Your task to perform on an android device: open app "Venmo" Image 0: 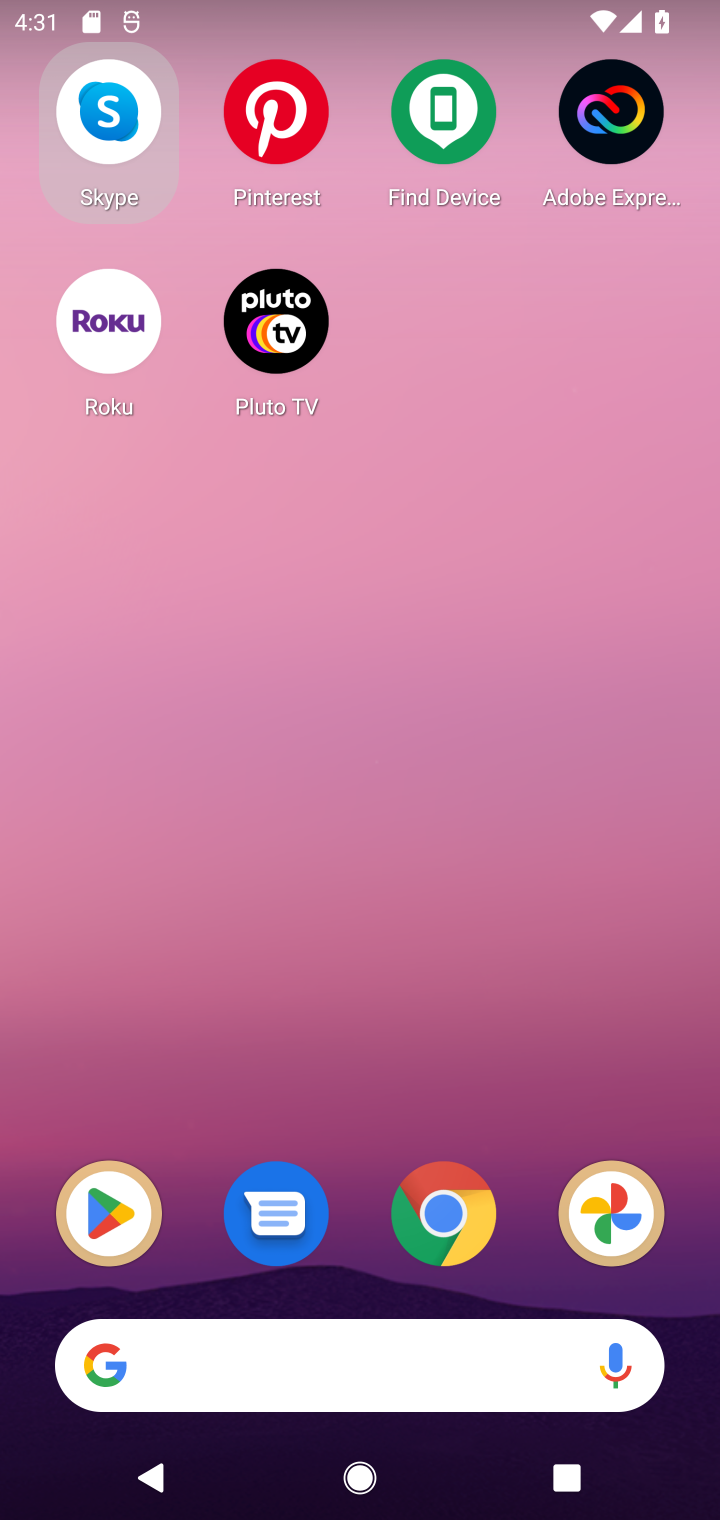
Step 0: drag from (567, 1040) to (659, 14)
Your task to perform on an android device: open app "Venmo" Image 1: 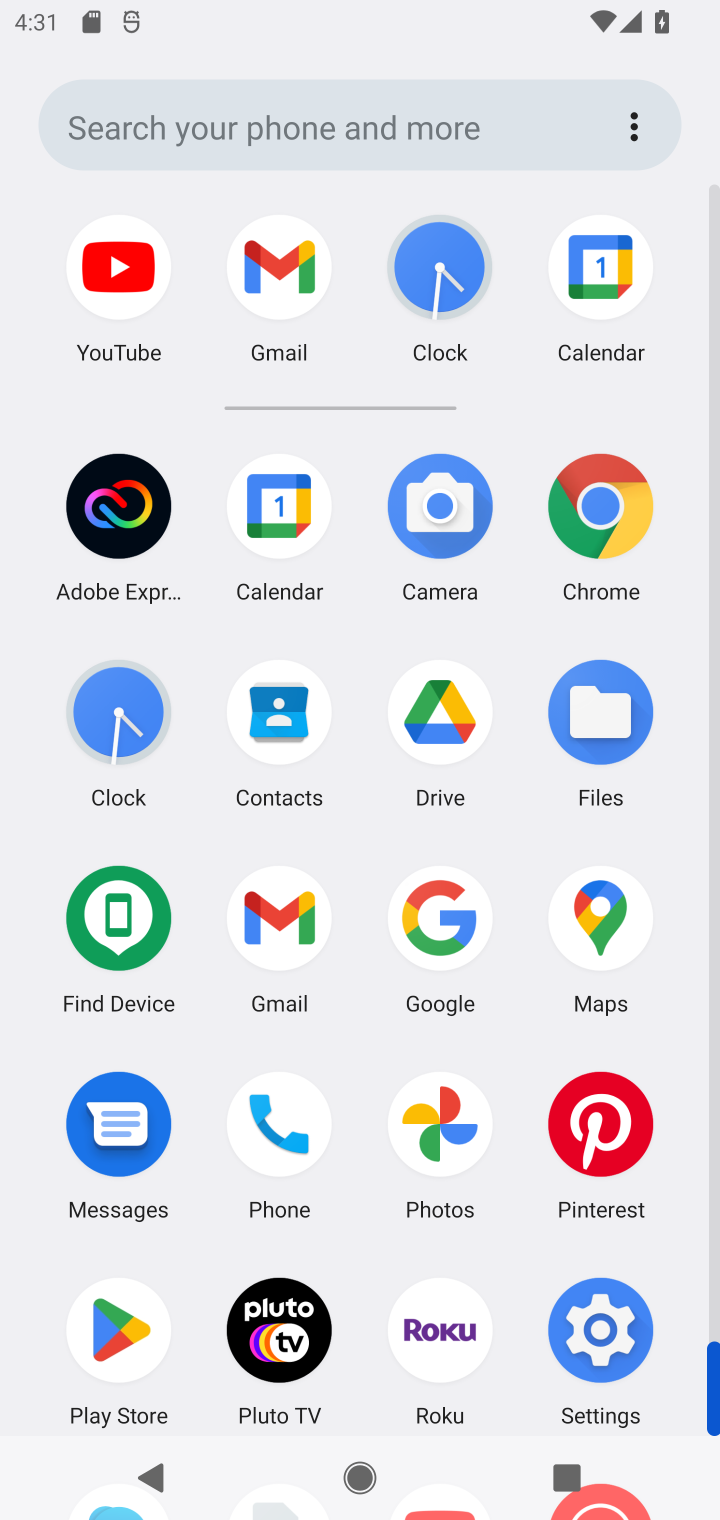
Step 1: click (106, 1289)
Your task to perform on an android device: open app "Venmo" Image 2: 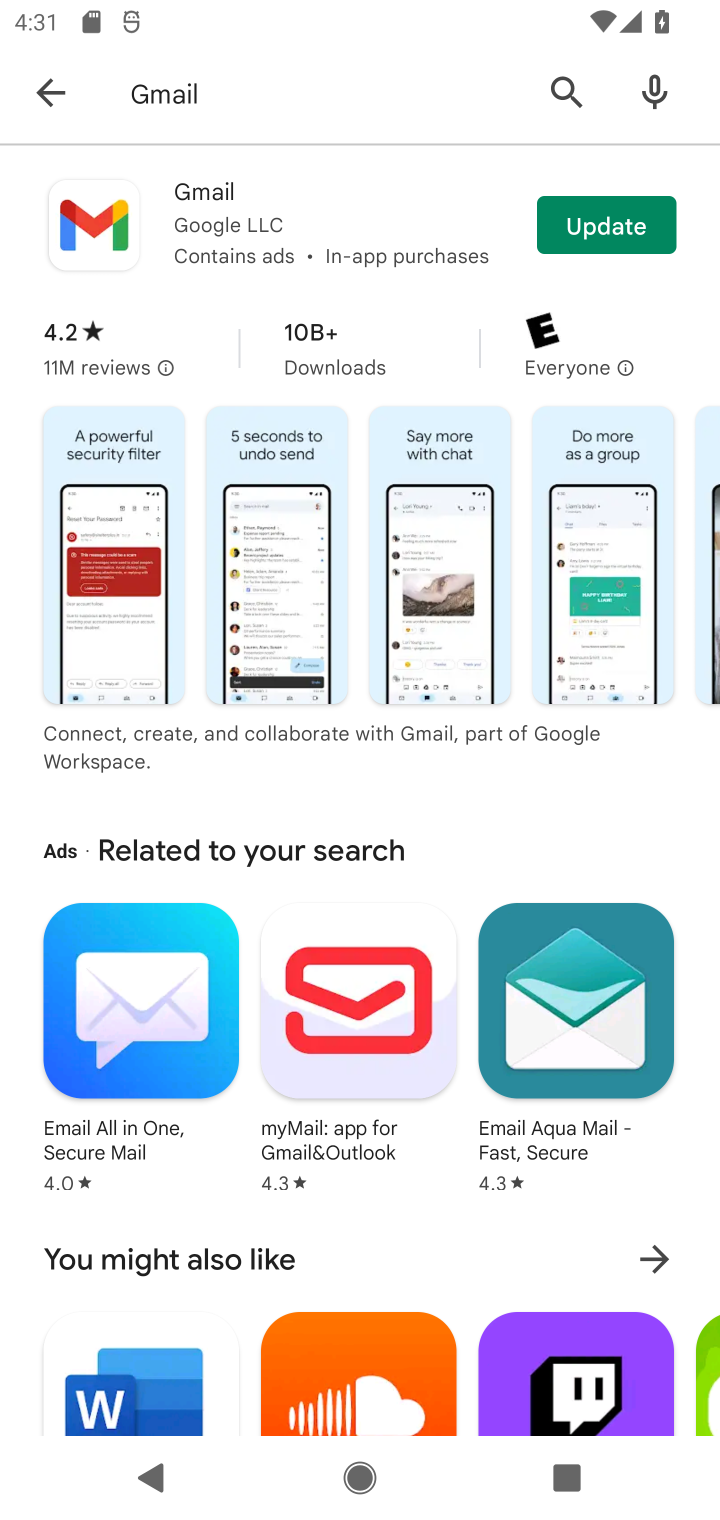
Step 2: click (231, 88)
Your task to perform on an android device: open app "Venmo" Image 3: 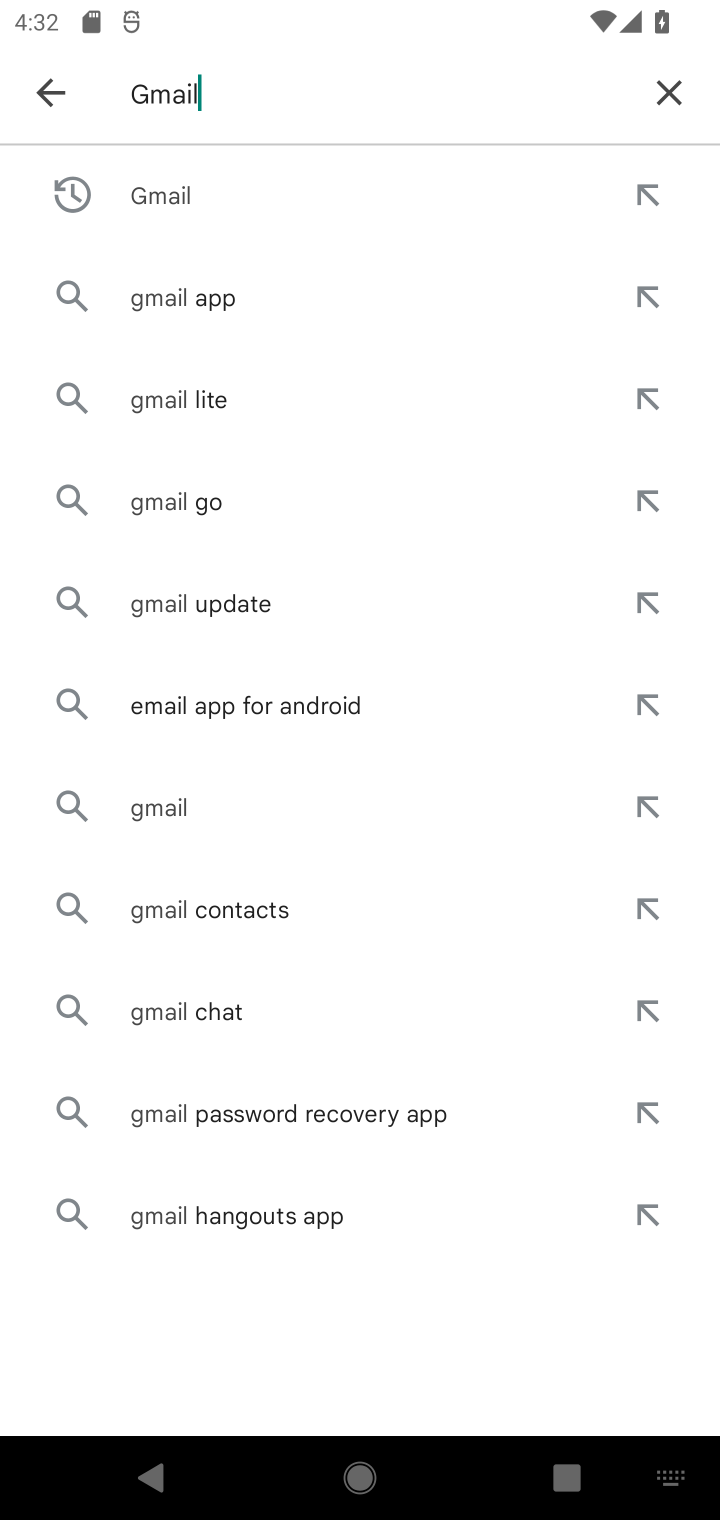
Step 3: click (651, 96)
Your task to perform on an android device: open app "Venmo" Image 4: 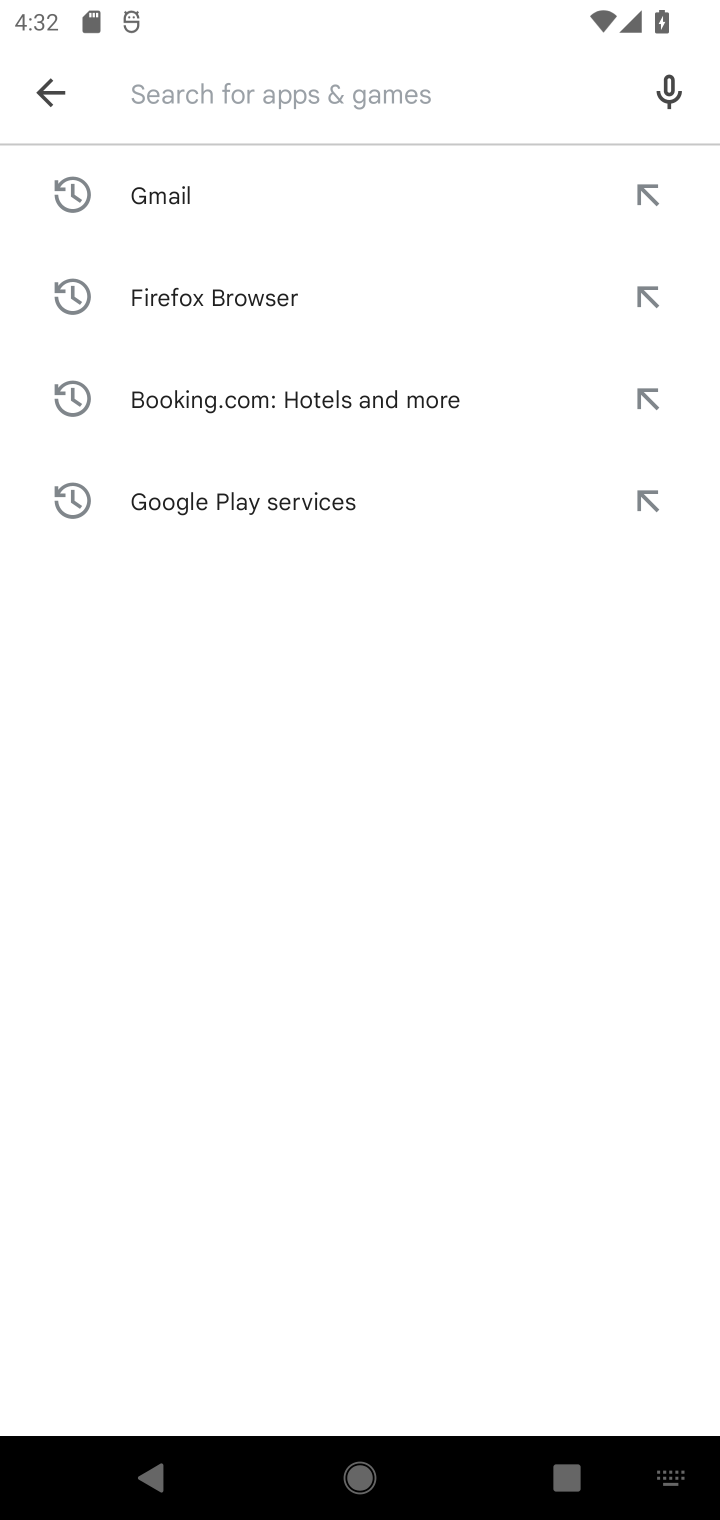
Step 4: type "Venmo"
Your task to perform on an android device: open app "Venmo" Image 5: 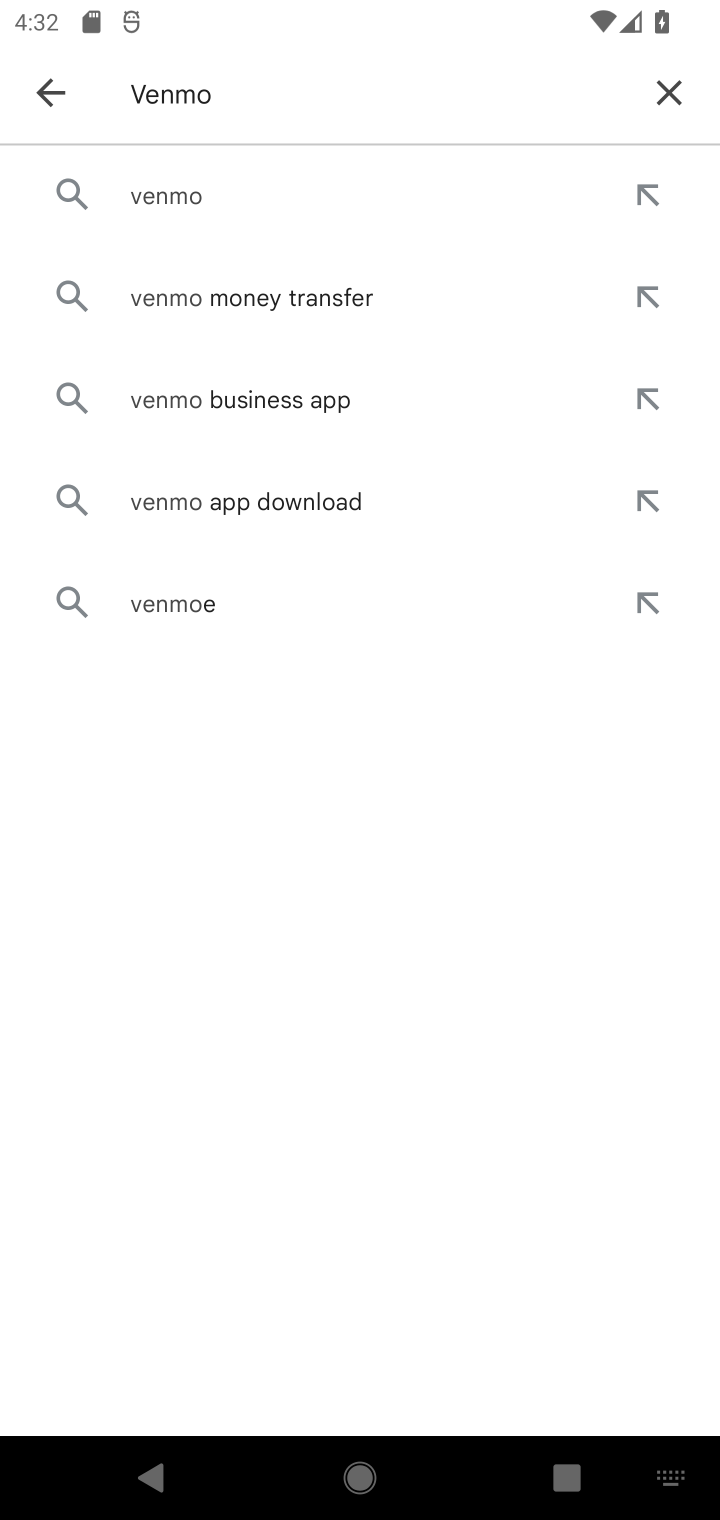
Step 5: press enter
Your task to perform on an android device: open app "Venmo" Image 6: 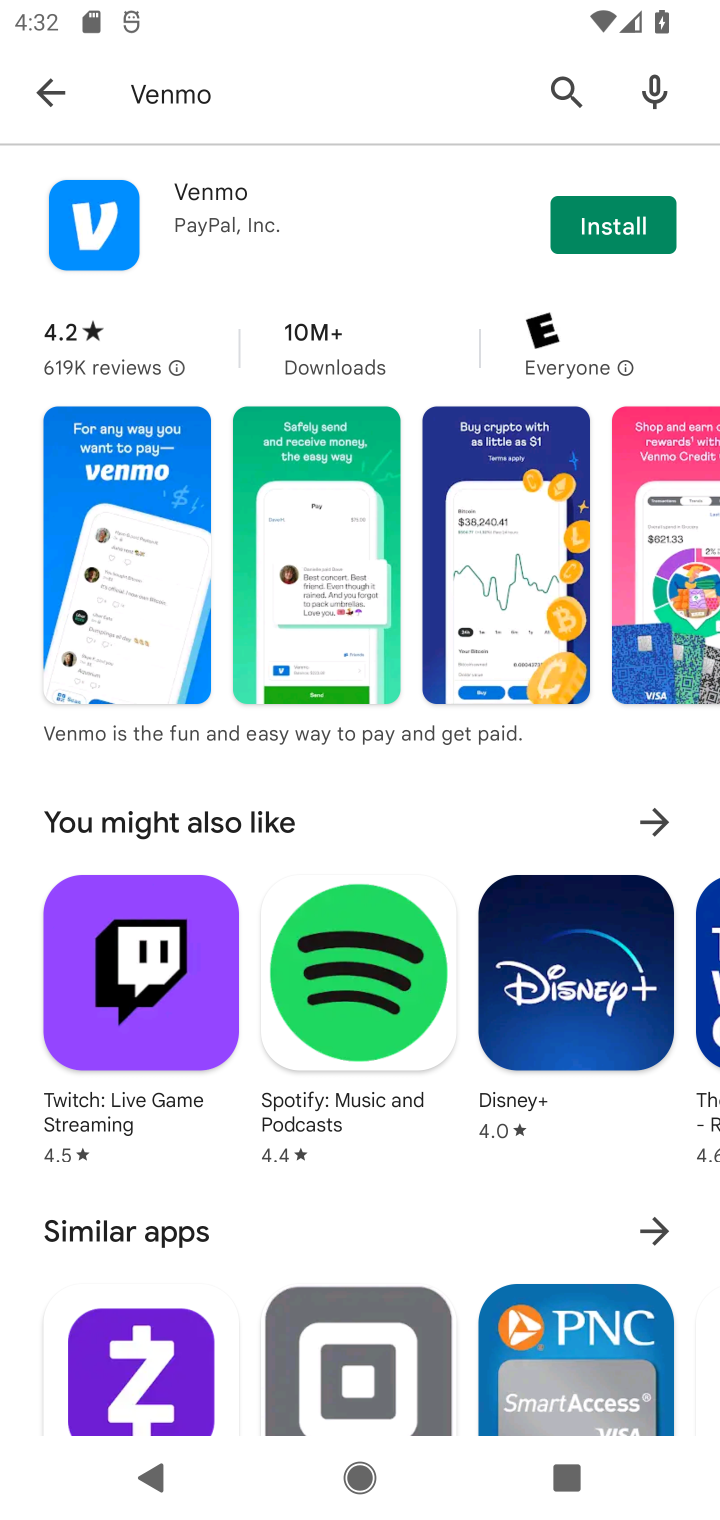
Step 6: task complete